Your task to perform on an android device: Open internet settings Image 0: 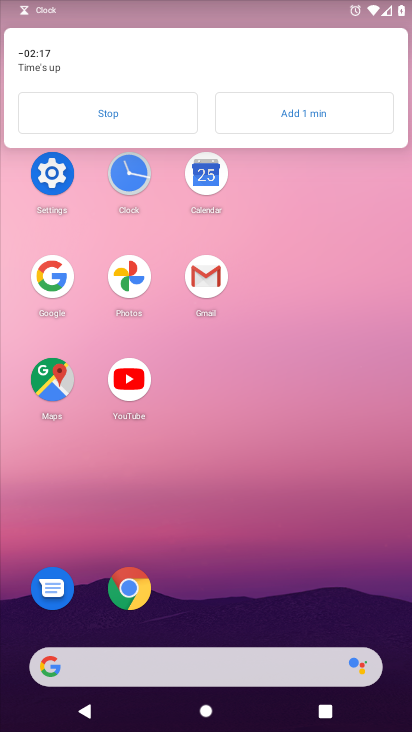
Step 0: click (64, 104)
Your task to perform on an android device: Open internet settings Image 1: 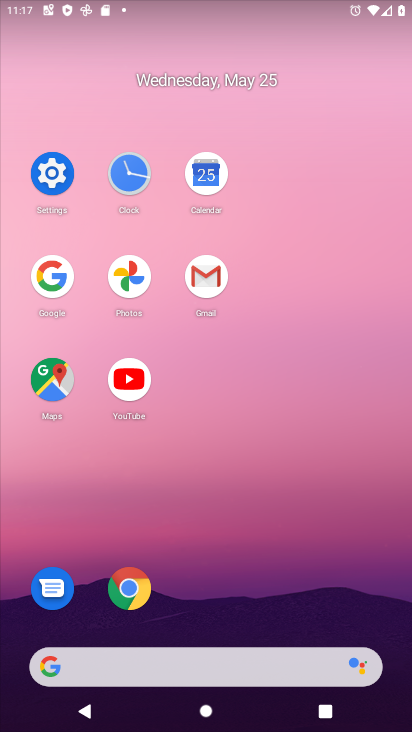
Step 1: click (65, 187)
Your task to perform on an android device: Open internet settings Image 2: 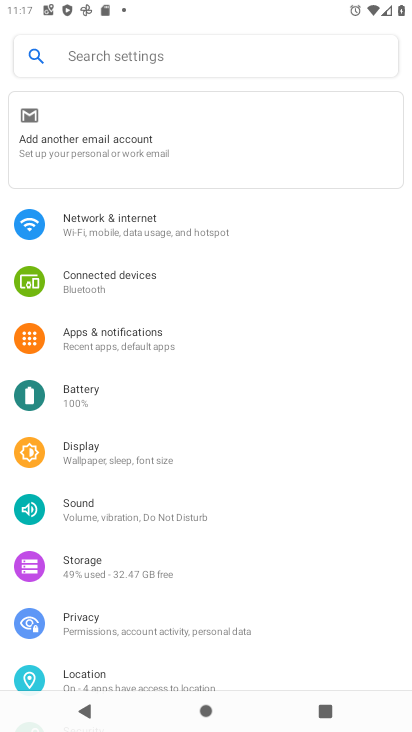
Step 2: click (172, 250)
Your task to perform on an android device: Open internet settings Image 3: 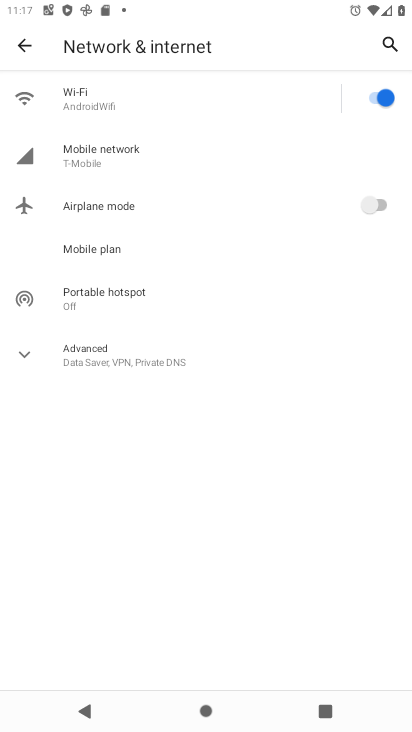
Step 3: task complete